Your task to perform on an android device: choose inbox layout in the gmail app Image 0: 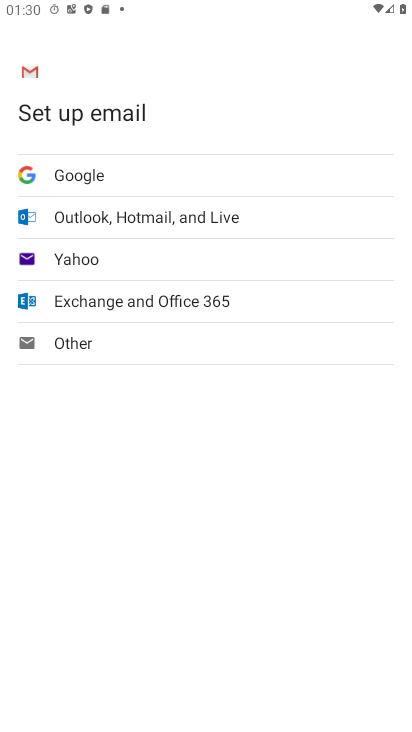
Step 0: press home button
Your task to perform on an android device: choose inbox layout in the gmail app Image 1: 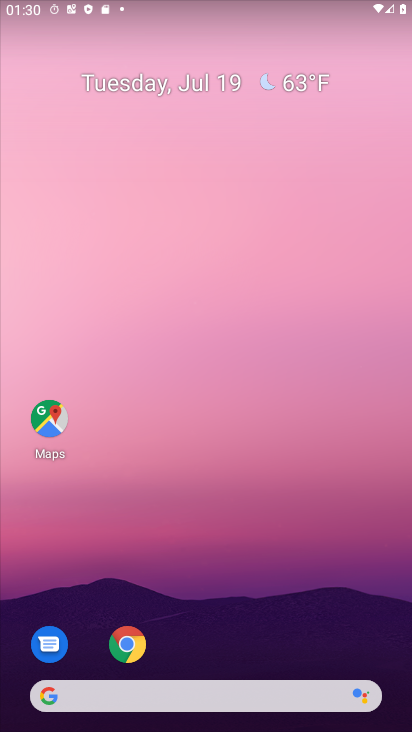
Step 1: drag from (217, 726) to (216, 255)
Your task to perform on an android device: choose inbox layout in the gmail app Image 2: 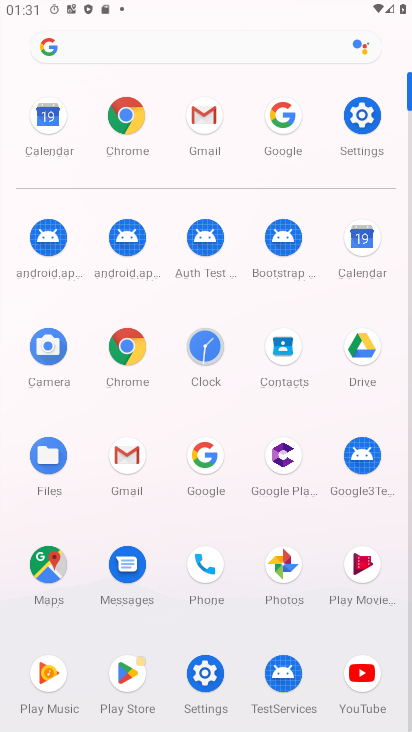
Step 2: click (130, 451)
Your task to perform on an android device: choose inbox layout in the gmail app Image 3: 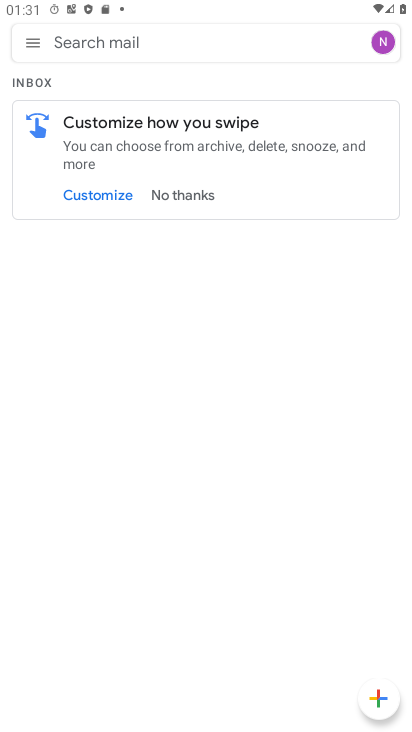
Step 3: click (33, 42)
Your task to perform on an android device: choose inbox layout in the gmail app Image 4: 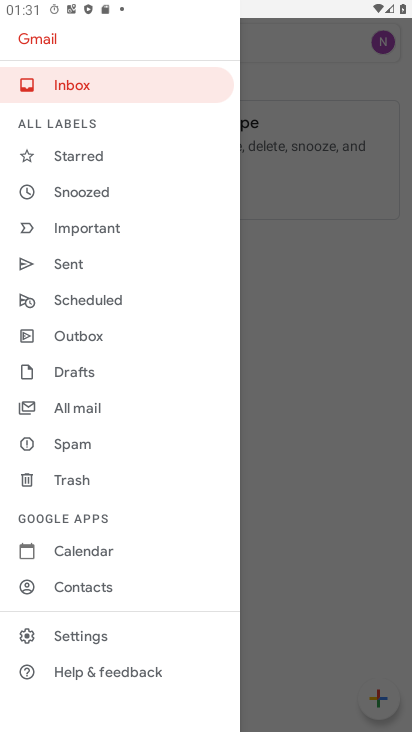
Step 4: click (69, 628)
Your task to perform on an android device: choose inbox layout in the gmail app Image 5: 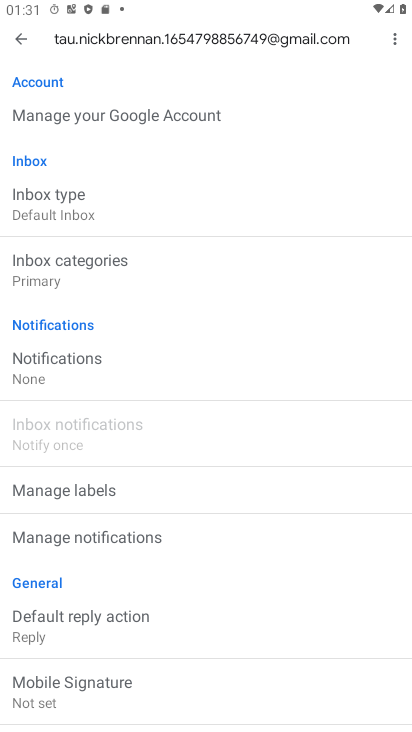
Step 5: click (59, 205)
Your task to perform on an android device: choose inbox layout in the gmail app Image 6: 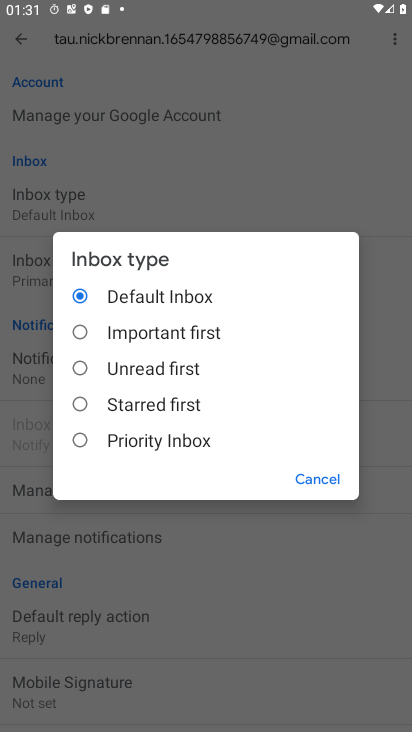
Step 6: click (78, 442)
Your task to perform on an android device: choose inbox layout in the gmail app Image 7: 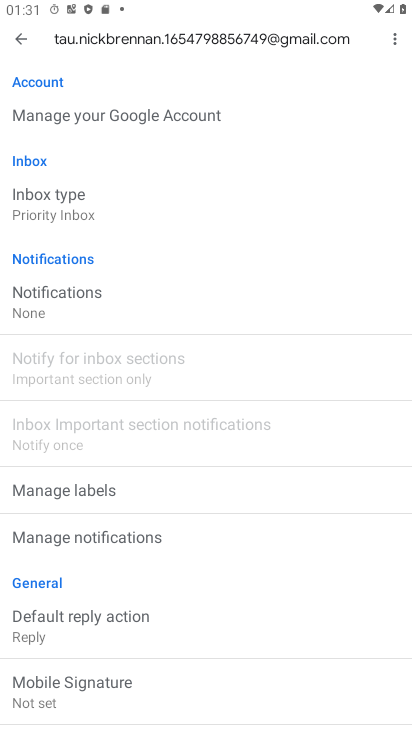
Step 7: task complete